Your task to perform on an android device: Is it going to rain tomorrow? Image 0: 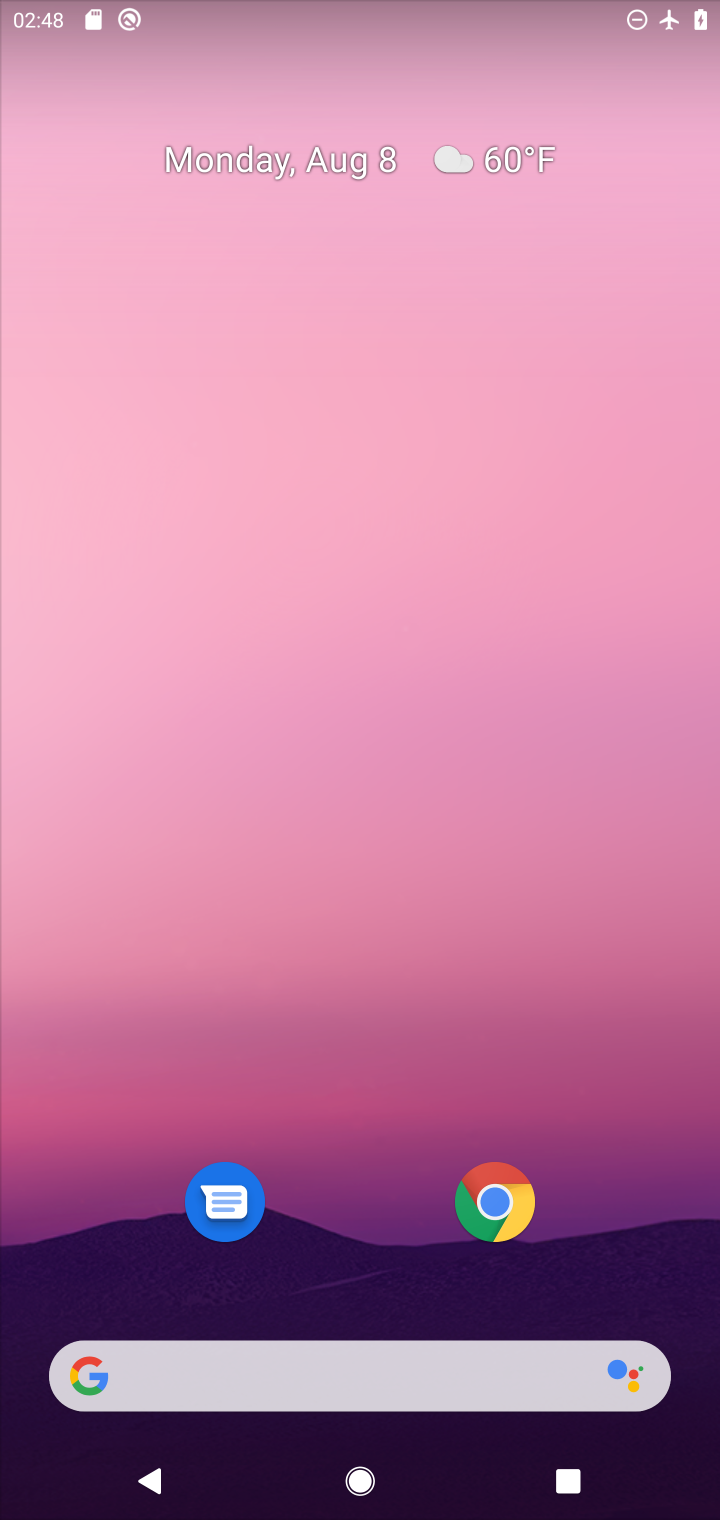
Step 0: press home button
Your task to perform on an android device: Is it going to rain tomorrow? Image 1: 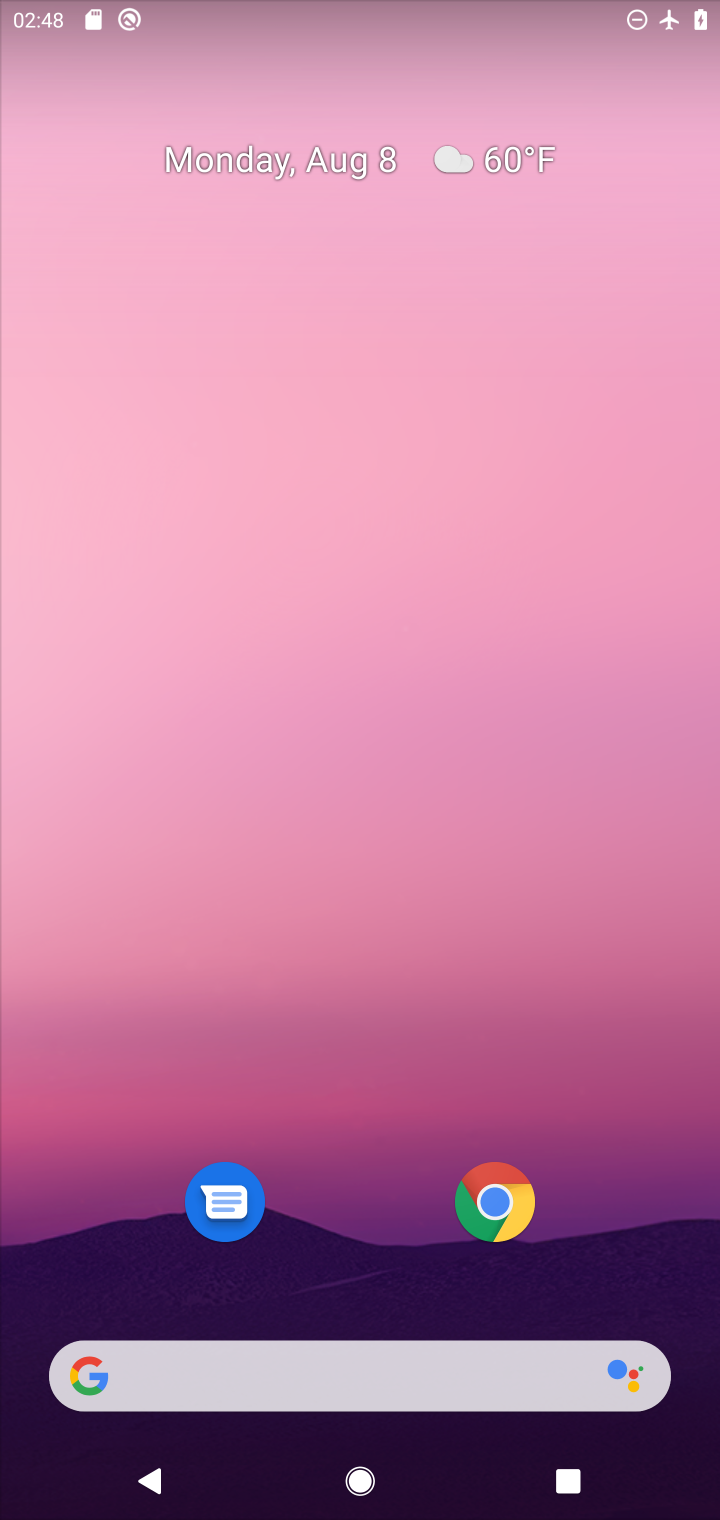
Step 1: click (304, 1367)
Your task to perform on an android device: Is it going to rain tomorrow? Image 2: 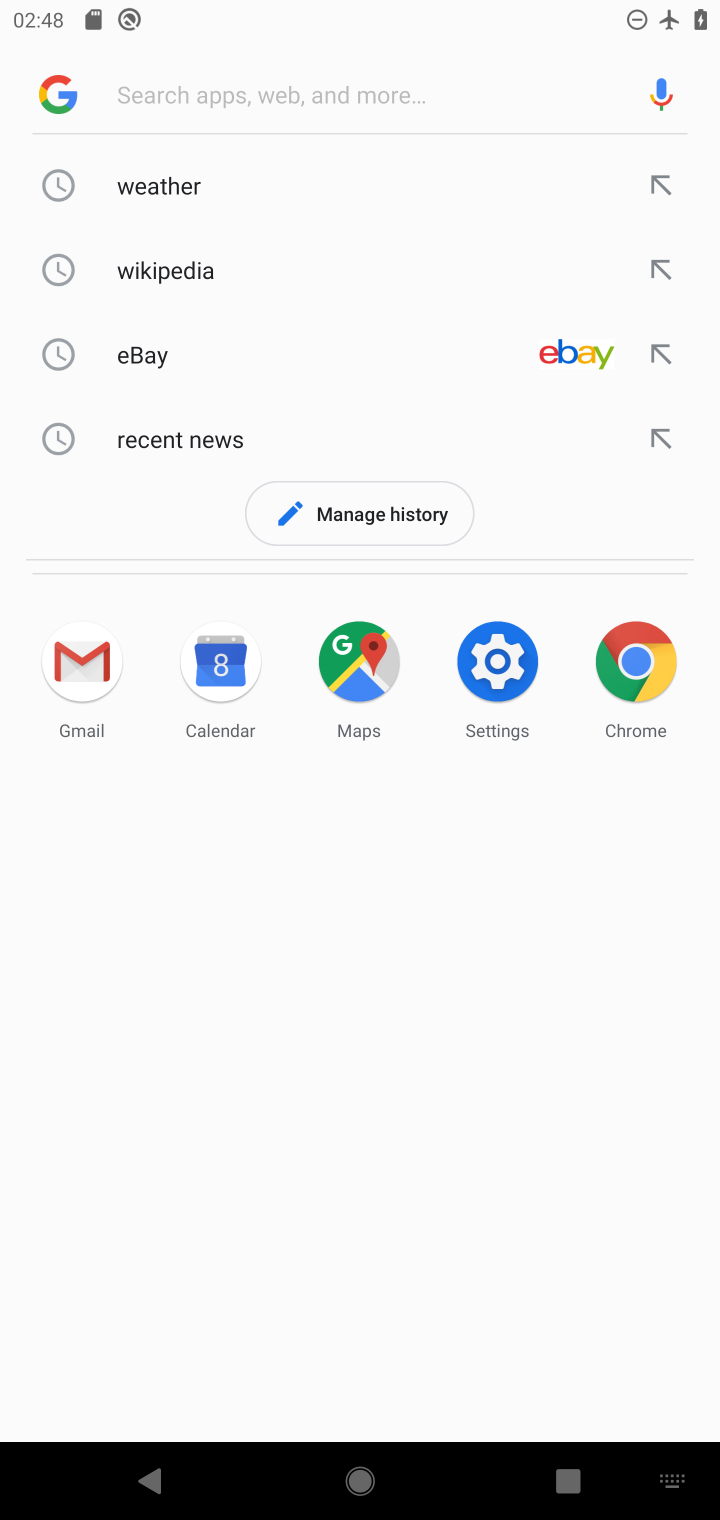
Step 2: type "weather"
Your task to perform on an android device: Is it going to rain tomorrow? Image 3: 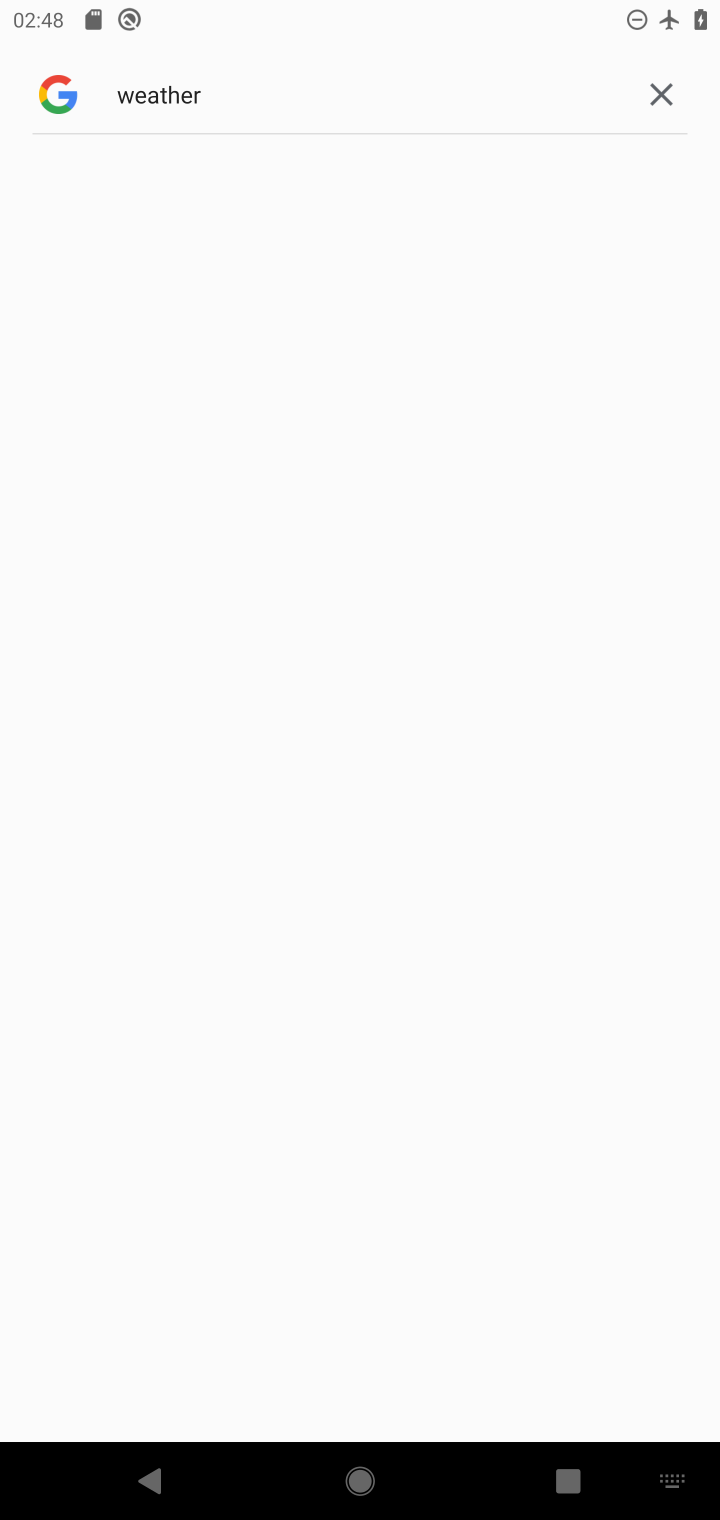
Step 3: click (658, 85)
Your task to perform on an android device: Is it going to rain tomorrow? Image 4: 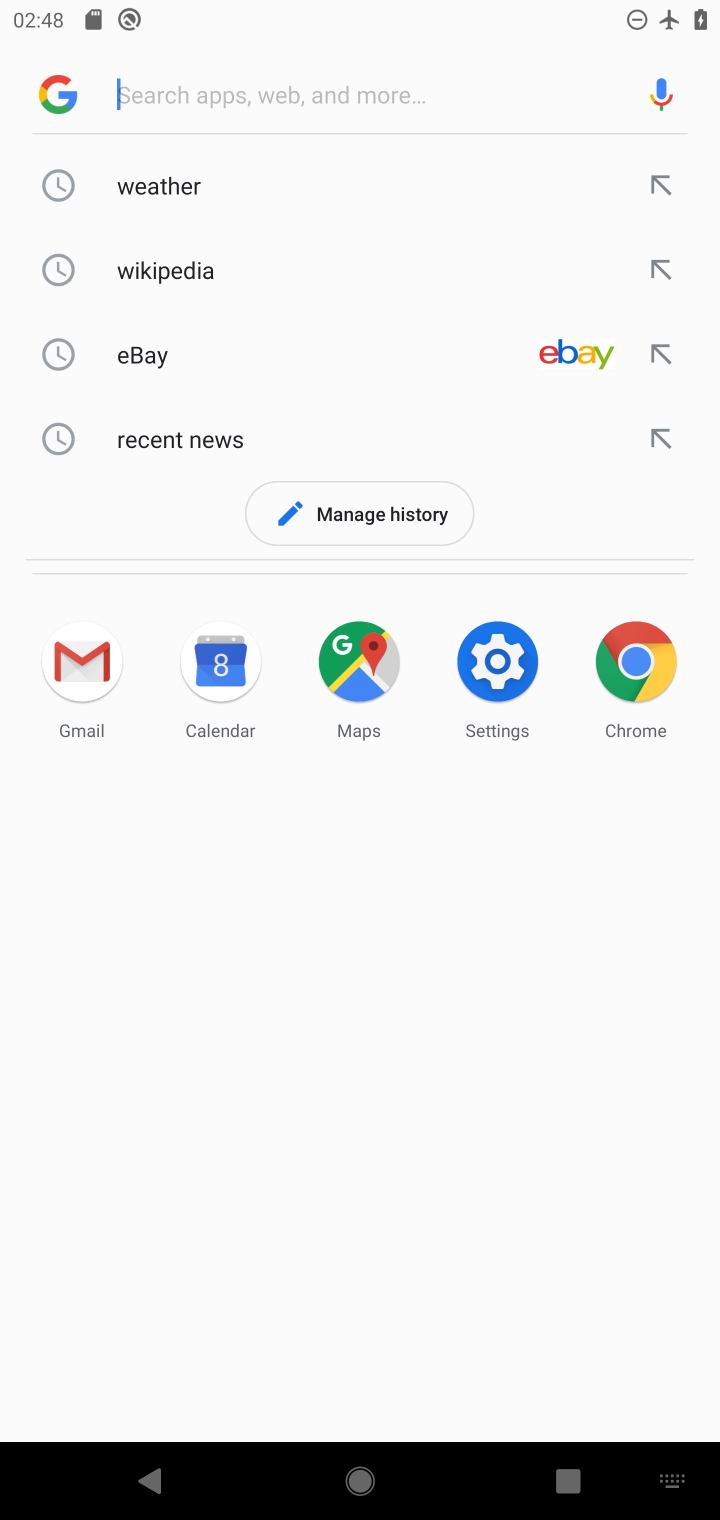
Step 4: task complete